Your task to perform on an android device: Empty the shopping cart on newegg.com. Add usb-b to the cart on newegg.com, then select checkout. Image 0: 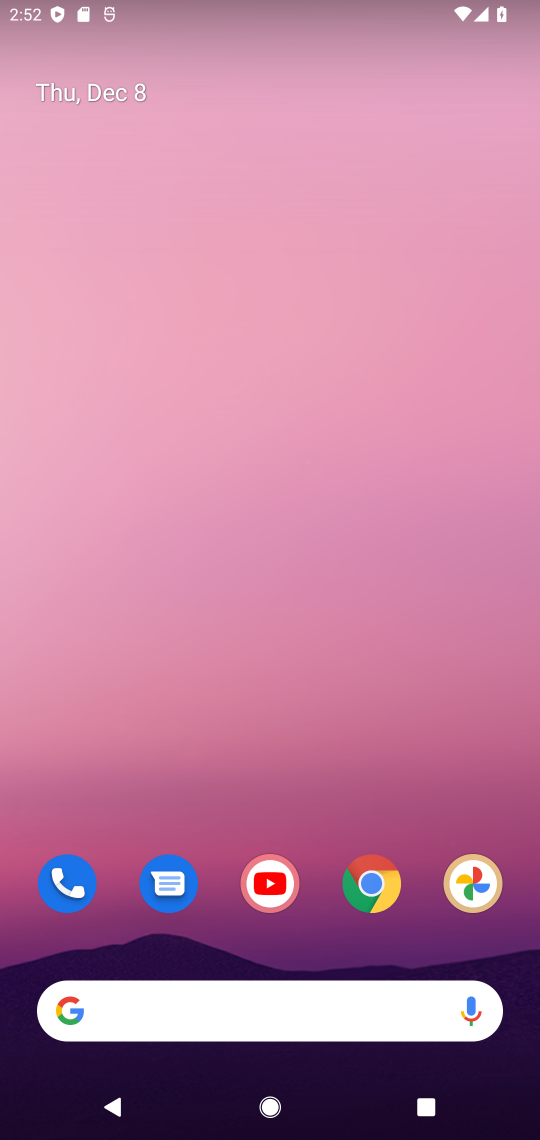
Step 0: drag from (188, 785) to (192, 125)
Your task to perform on an android device: Empty the shopping cart on newegg.com. Add usb-b to the cart on newegg.com, then select checkout. Image 1: 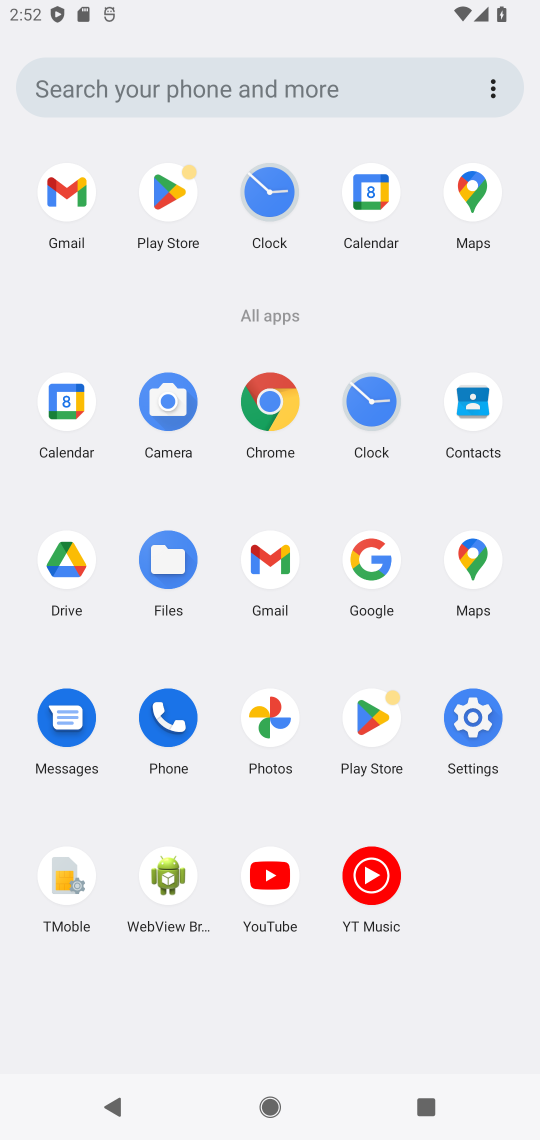
Step 1: click (372, 568)
Your task to perform on an android device: Empty the shopping cart on newegg.com. Add usb-b to the cart on newegg.com, then select checkout. Image 2: 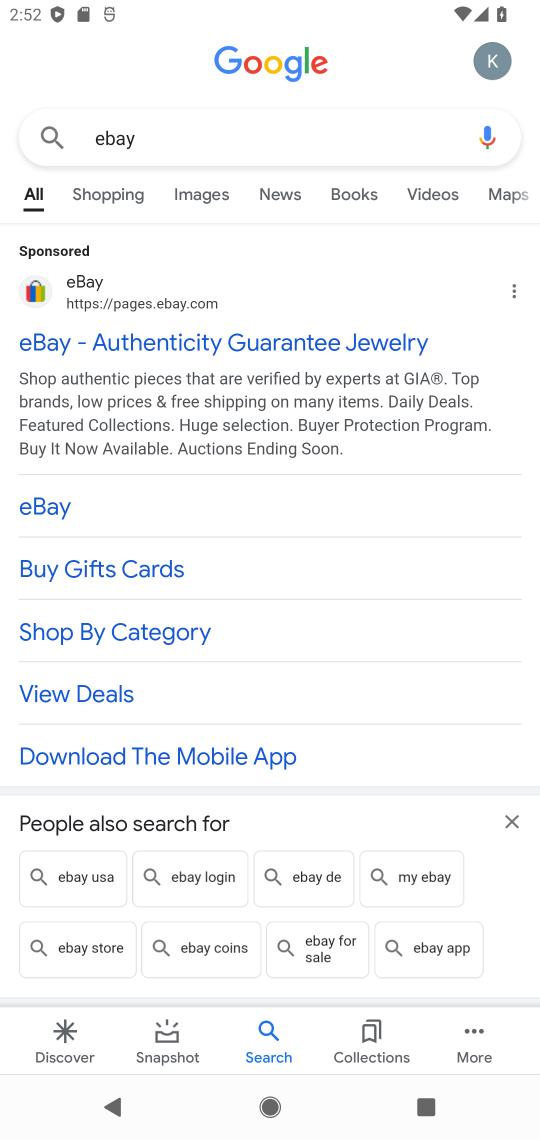
Step 2: click (123, 142)
Your task to perform on an android device: Empty the shopping cart on newegg.com. Add usb-b to the cart on newegg.com, then select checkout. Image 3: 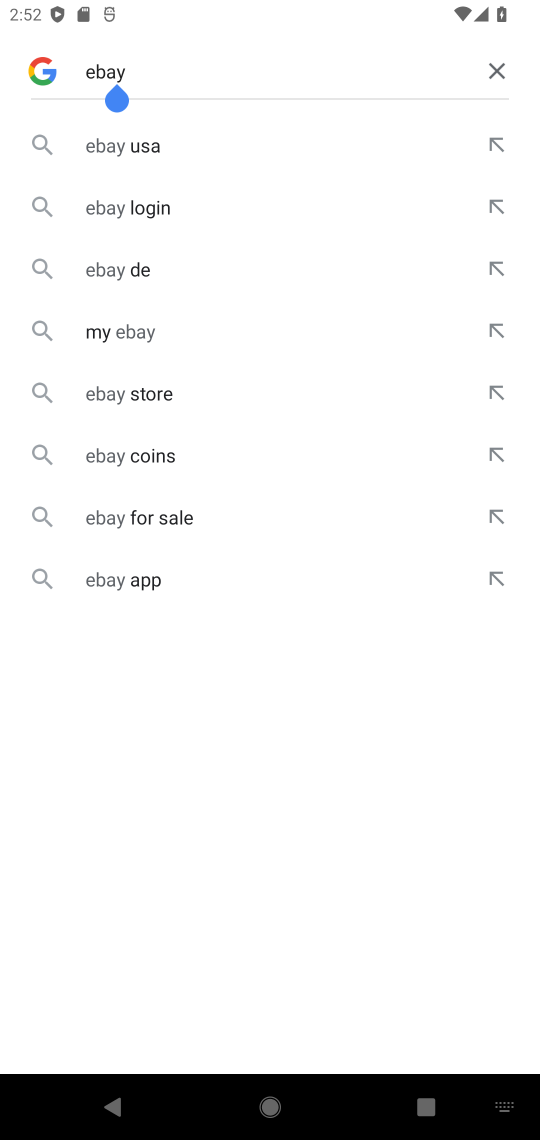
Step 3: click (502, 67)
Your task to perform on an android device: Empty the shopping cart on newegg.com. Add usb-b to the cart on newegg.com, then select checkout. Image 4: 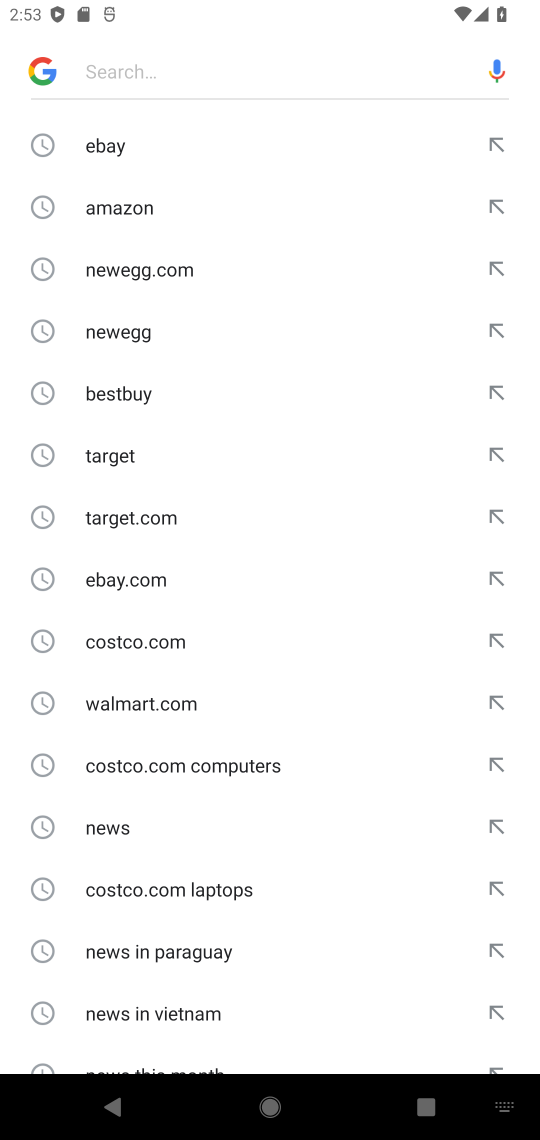
Step 4: click (97, 263)
Your task to perform on an android device: Empty the shopping cart on newegg.com. Add usb-b to the cart on newegg.com, then select checkout. Image 5: 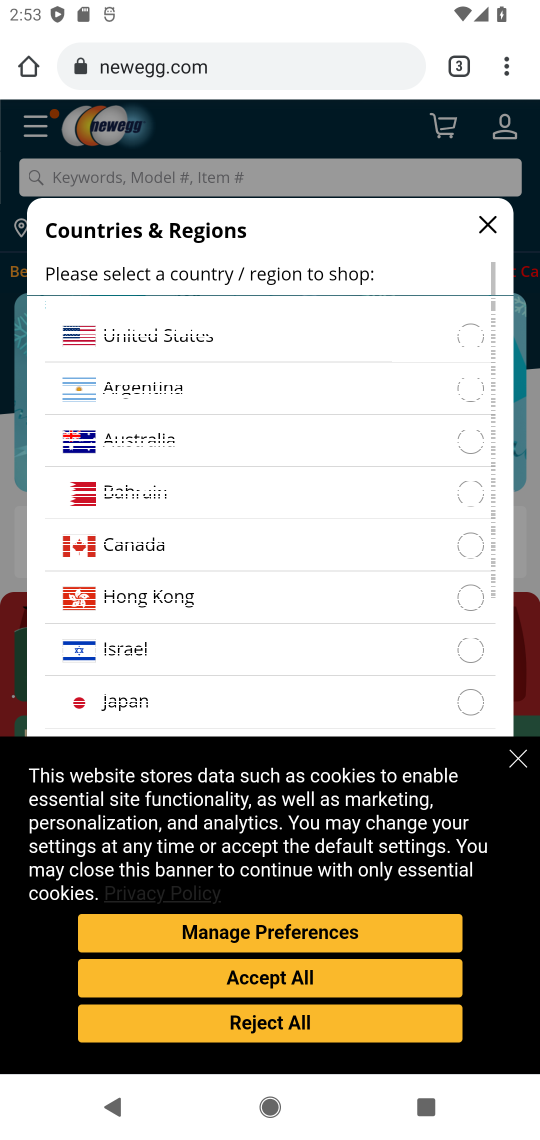
Step 5: click (491, 215)
Your task to perform on an android device: Empty the shopping cart on newegg.com. Add usb-b to the cart on newegg.com, then select checkout. Image 6: 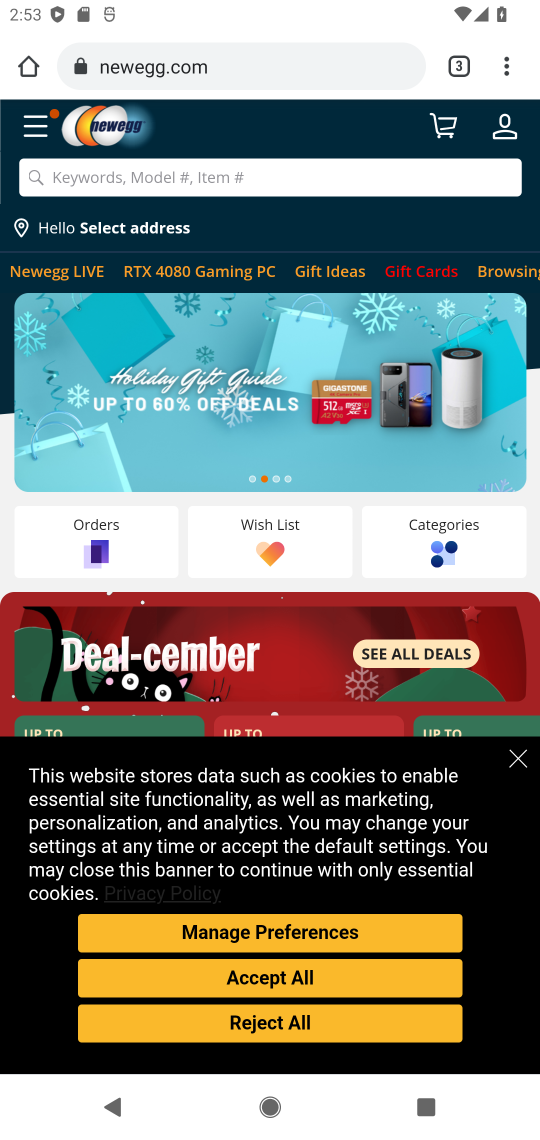
Step 6: click (85, 182)
Your task to perform on an android device: Empty the shopping cart on newegg.com. Add usb-b to the cart on newegg.com, then select checkout. Image 7: 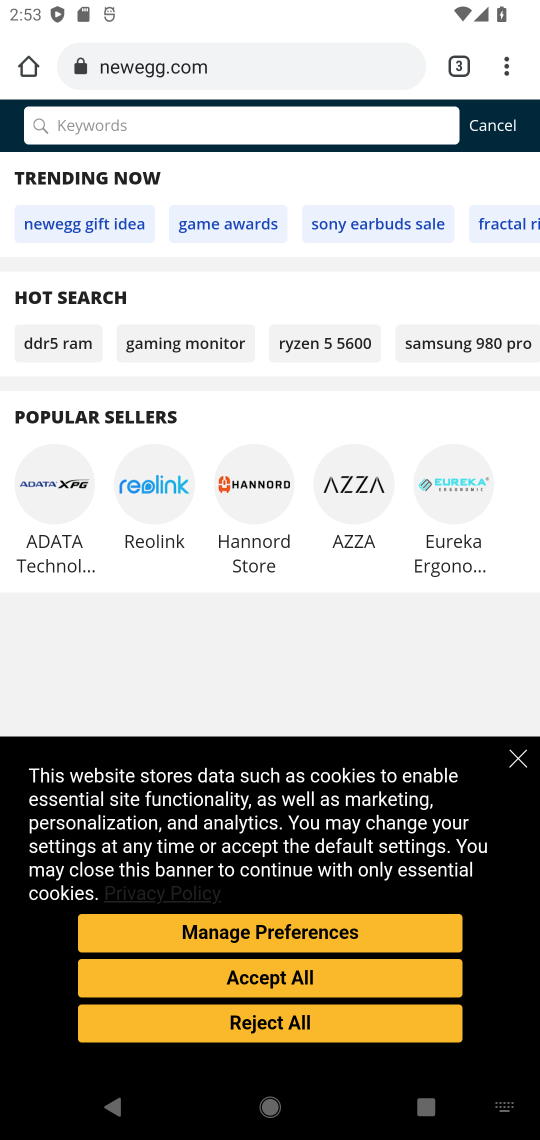
Step 7: click (516, 754)
Your task to perform on an android device: Empty the shopping cart on newegg.com. Add usb-b to the cart on newegg.com, then select checkout. Image 8: 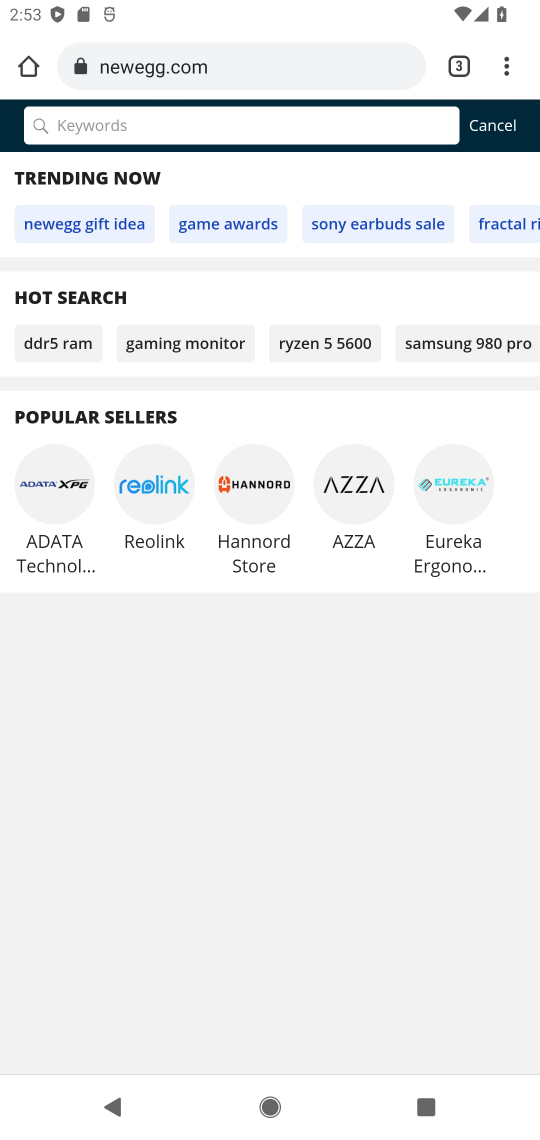
Step 8: click (130, 135)
Your task to perform on an android device: Empty the shopping cart on newegg.com. Add usb-b to the cart on newegg.com, then select checkout. Image 9: 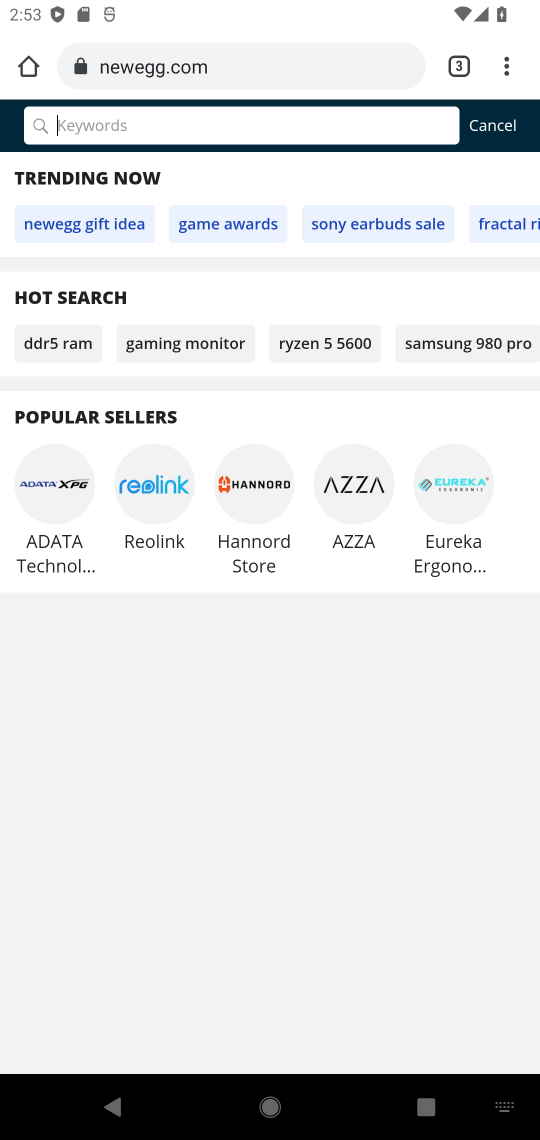
Step 9: type "usb-b"
Your task to perform on an android device: Empty the shopping cart on newegg.com. Add usb-b to the cart on newegg.com, then select checkout. Image 10: 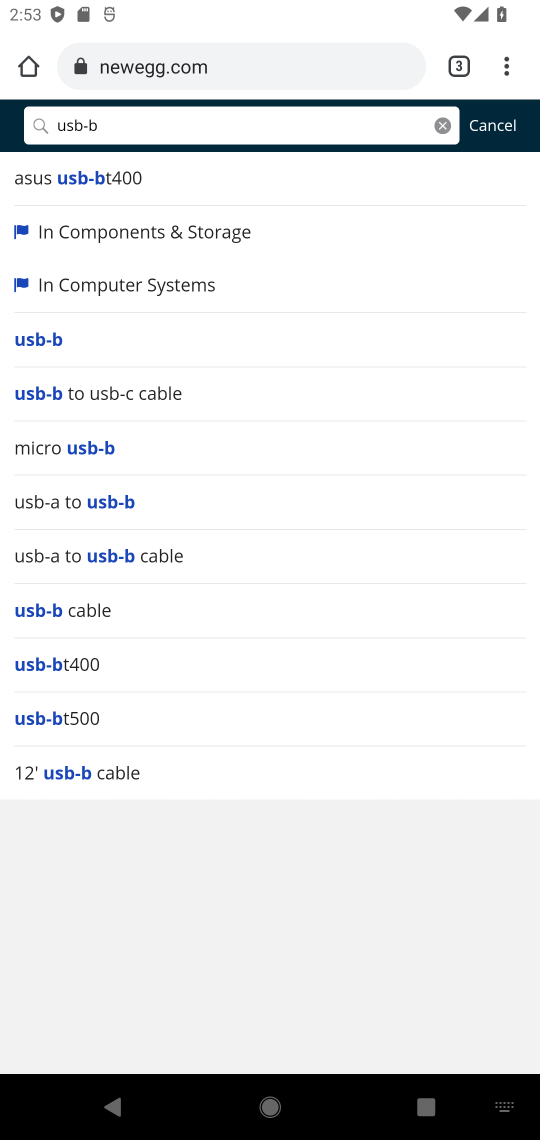
Step 10: click (50, 336)
Your task to perform on an android device: Empty the shopping cart on newegg.com. Add usb-b to the cart on newegg.com, then select checkout. Image 11: 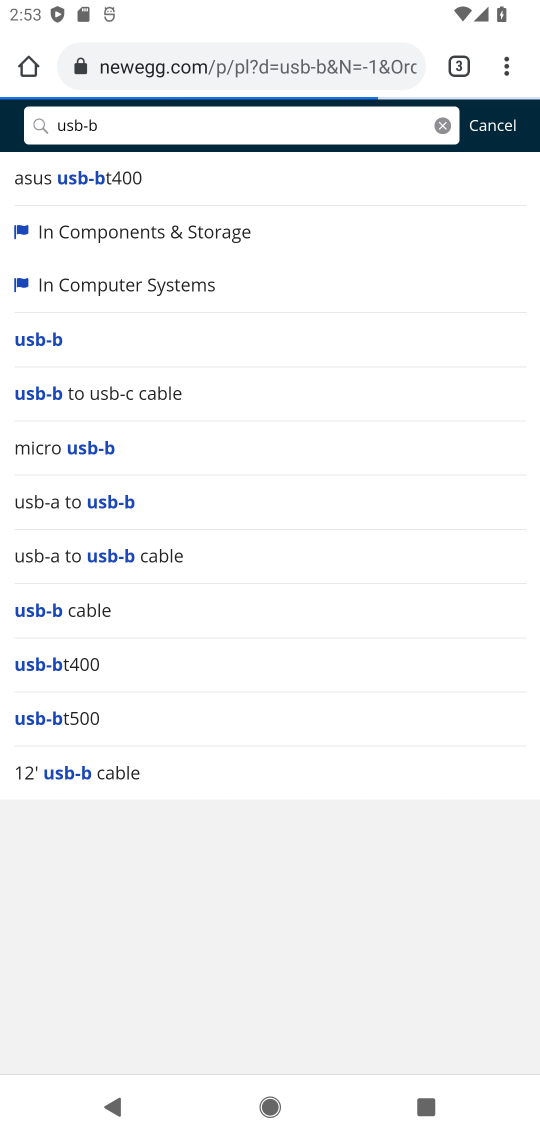
Step 11: click (40, 339)
Your task to perform on an android device: Empty the shopping cart on newegg.com. Add usb-b to the cart on newegg.com, then select checkout. Image 12: 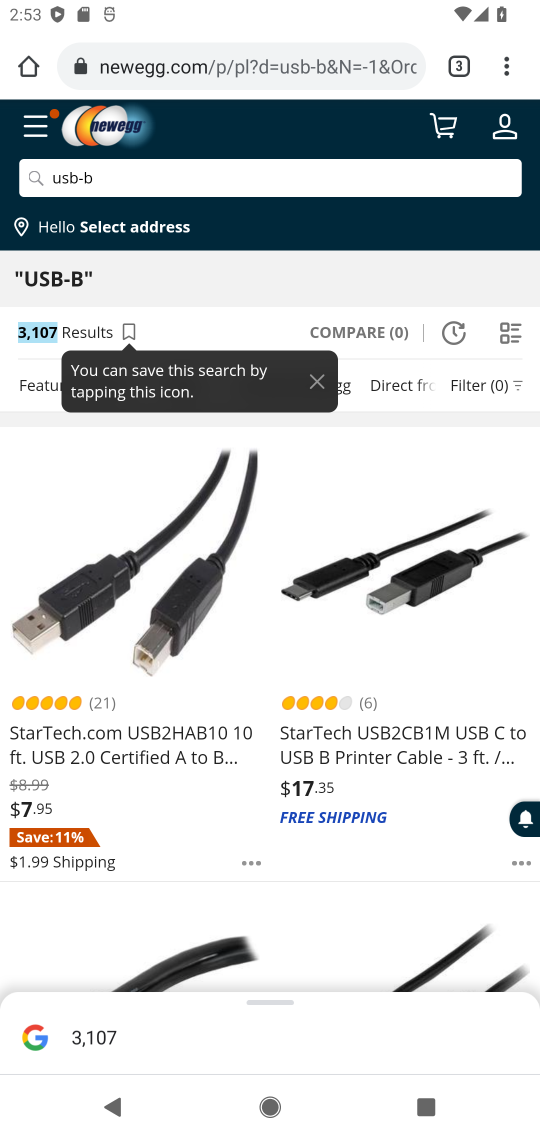
Step 12: click (120, 601)
Your task to perform on an android device: Empty the shopping cart on newegg.com. Add usb-b to the cart on newegg.com, then select checkout. Image 13: 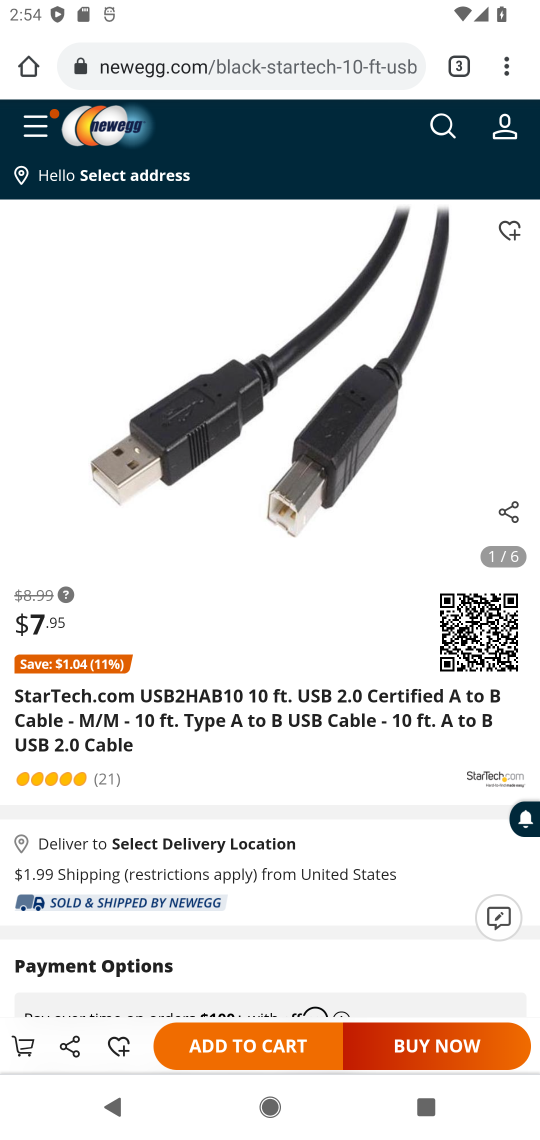
Step 13: click (285, 1039)
Your task to perform on an android device: Empty the shopping cart on newegg.com. Add usb-b to the cart on newegg.com, then select checkout. Image 14: 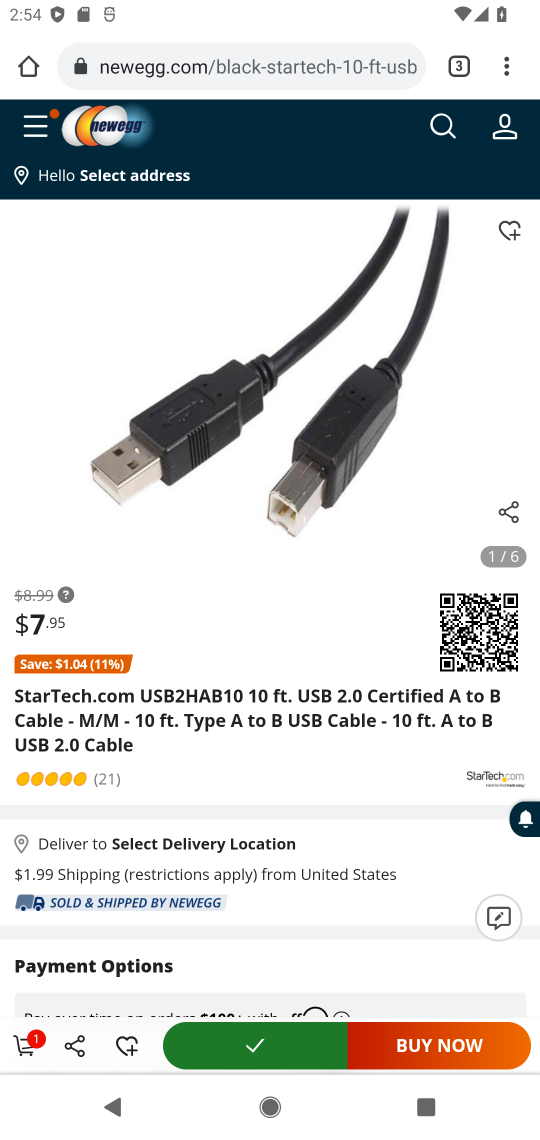
Step 14: click (29, 1043)
Your task to perform on an android device: Empty the shopping cart on newegg.com. Add usb-b to the cart on newegg.com, then select checkout. Image 15: 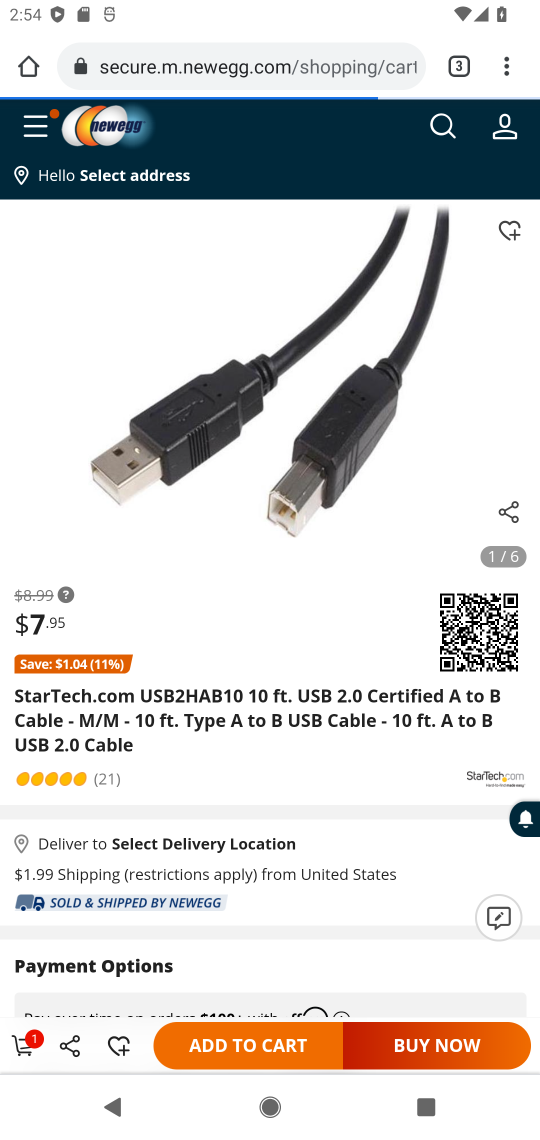
Step 15: click (29, 1043)
Your task to perform on an android device: Empty the shopping cart on newegg.com. Add usb-b to the cart on newegg.com, then select checkout. Image 16: 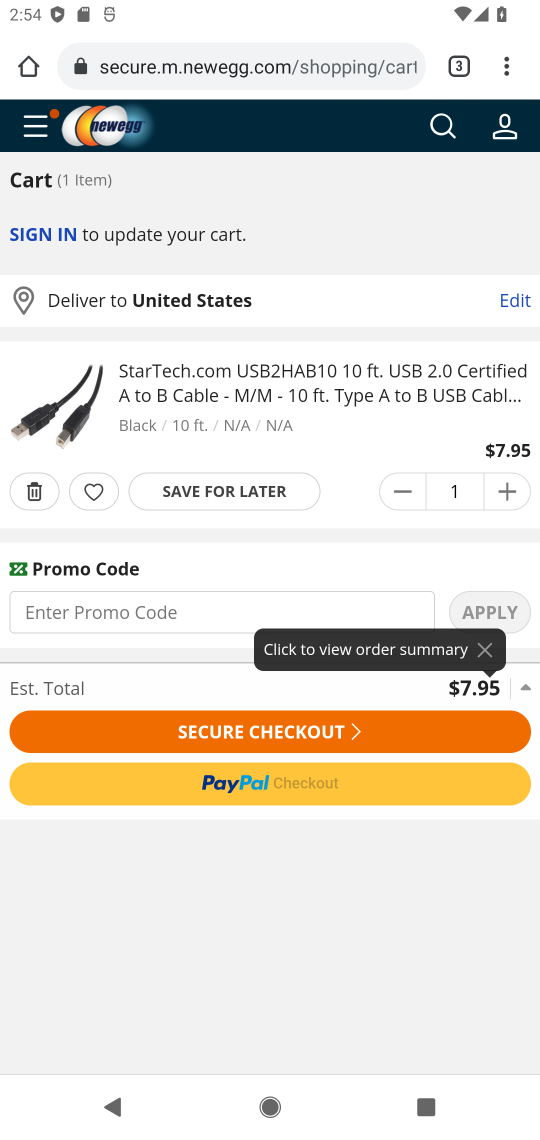
Step 16: click (237, 724)
Your task to perform on an android device: Empty the shopping cart on newegg.com. Add usb-b to the cart on newegg.com, then select checkout. Image 17: 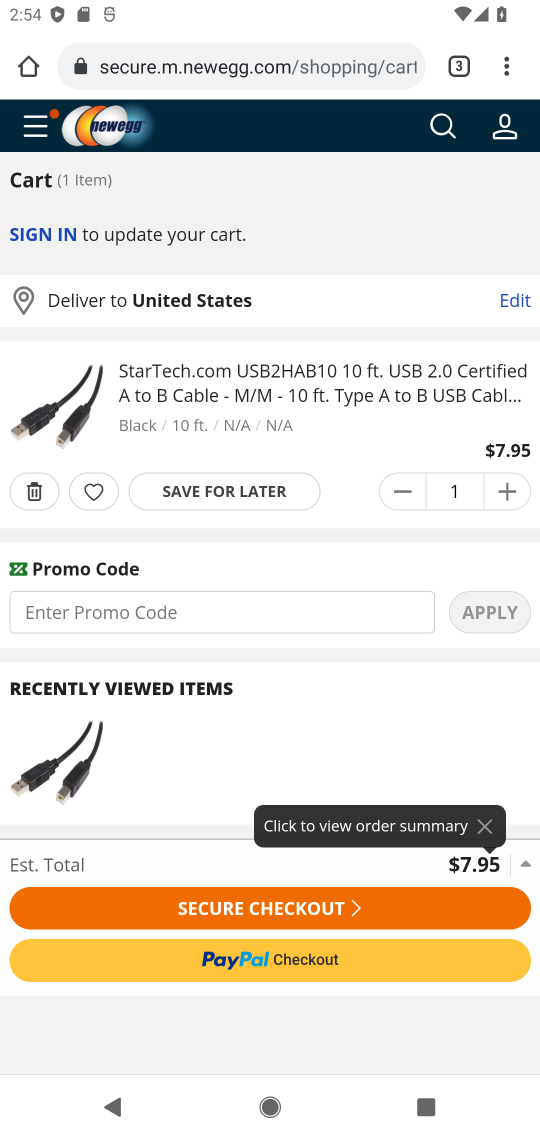
Step 17: click (254, 910)
Your task to perform on an android device: Empty the shopping cart on newegg.com. Add usb-b to the cart on newegg.com, then select checkout. Image 18: 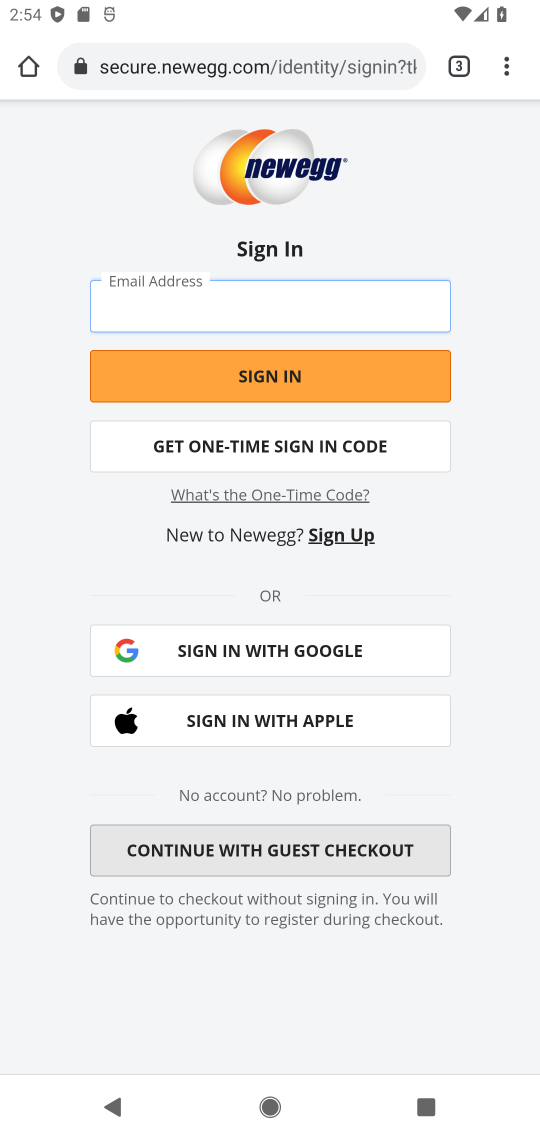
Step 18: task complete